Your task to perform on an android device: toggle show notifications on the lock screen Image 0: 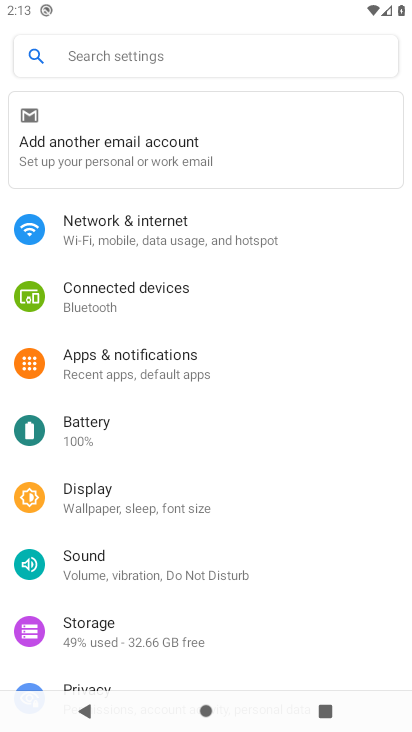
Step 0: press home button
Your task to perform on an android device: toggle show notifications on the lock screen Image 1: 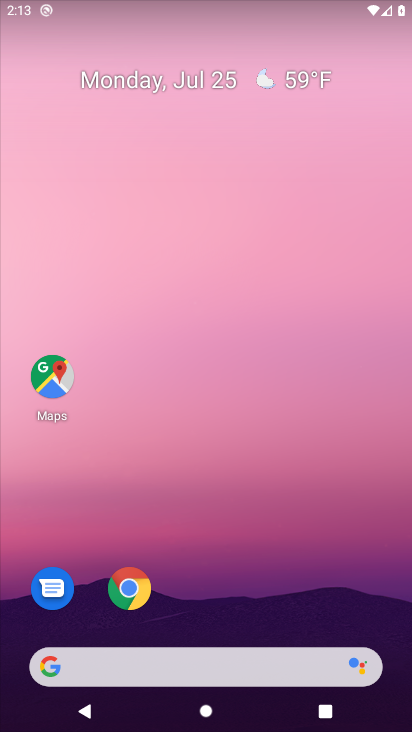
Step 1: drag from (272, 555) to (84, 4)
Your task to perform on an android device: toggle show notifications on the lock screen Image 2: 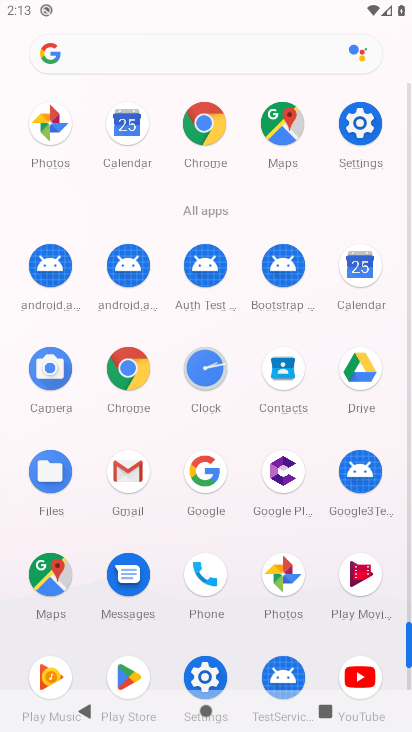
Step 2: click (365, 111)
Your task to perform on an android device: toggle show notifications on the lock screen Image 3: 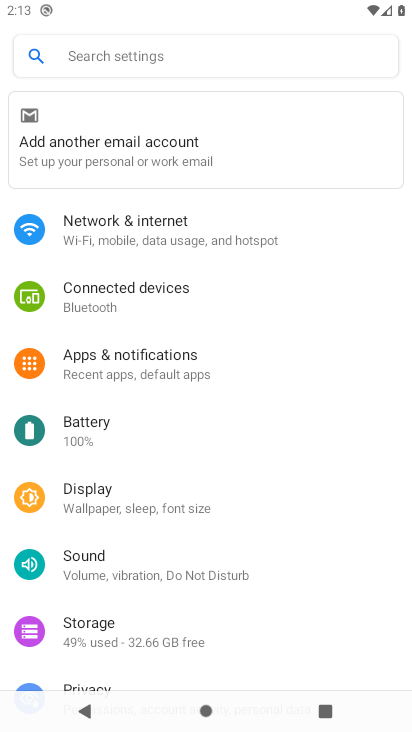
Step 3: drag from (180, 593) to (172, 343)
Your task to perform on an android device: toggle show notifications on the lock screen Image 4: 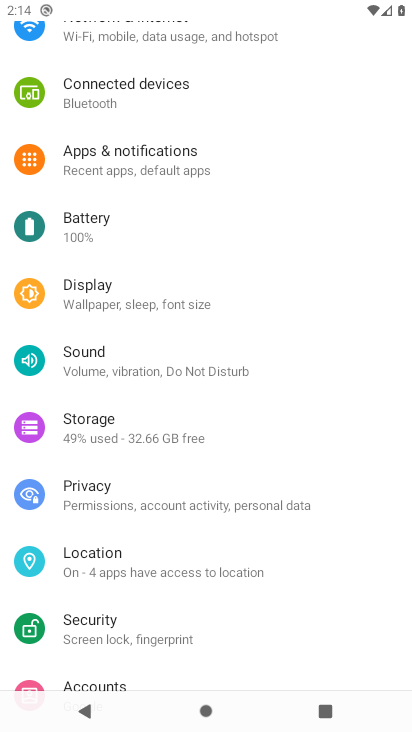
Step 4: drag from (187, 552) to (130, 259)
Your task to perform on an android device: toggle show notifications on the lock screen Image 5: 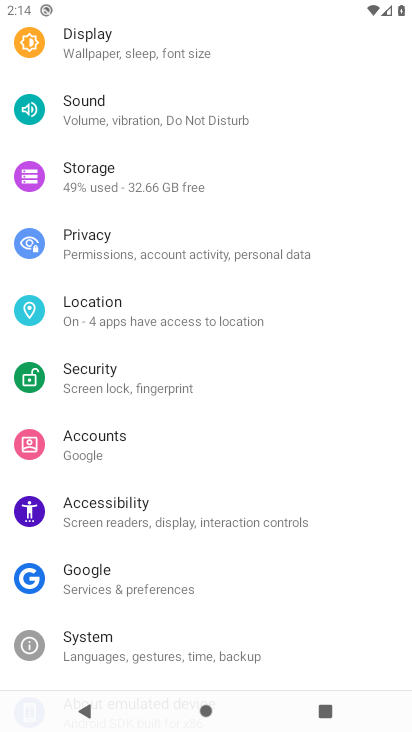
Step 5: drag from (112, 147) to (152, 427)
Your task to perform on an android device: toggle show notifications on the lock screen Image 6: 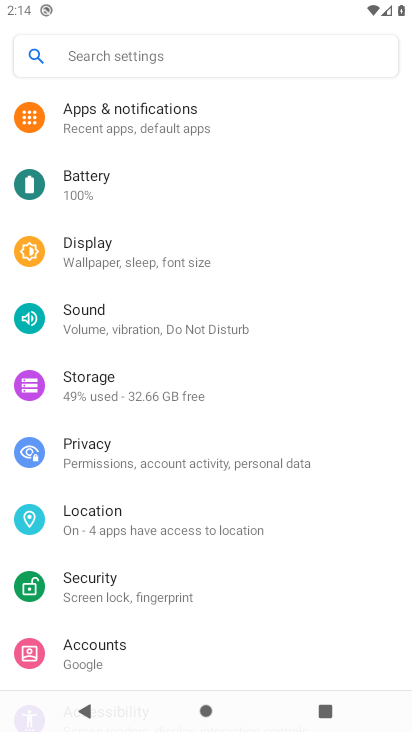
Step 6: click (106, 113)
Your task to perform on an android device: toggle show notifications on the lock screen Image 7: 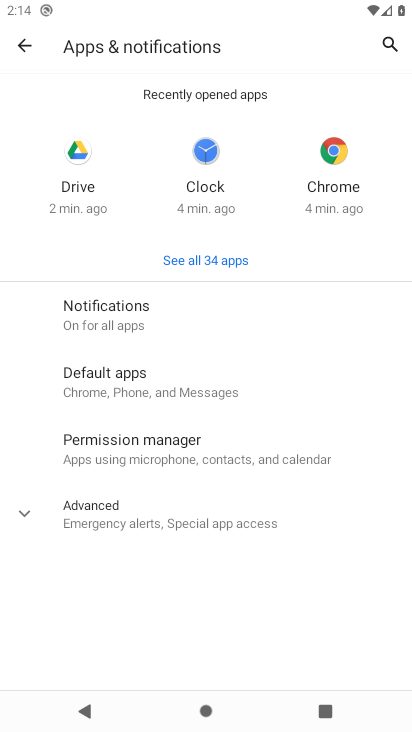
Step 7: click (211, 304)
Your task to perform on an android device: toggle show notifications on the lock screen Image 8: 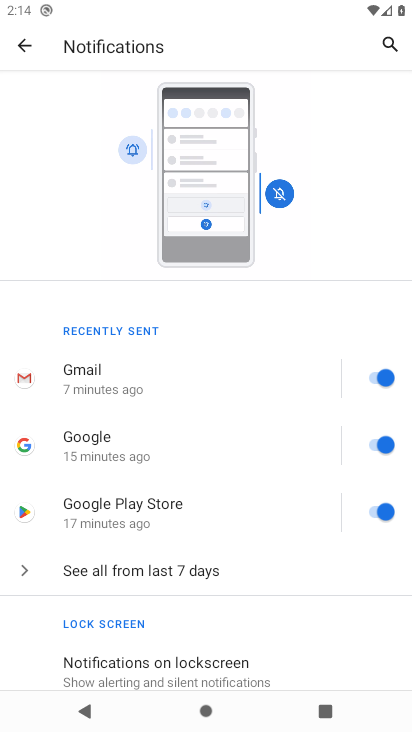
Step 8: click (217, 666)
Your task to perform on an android device: toggle show notifications on the lock screen Image 9: 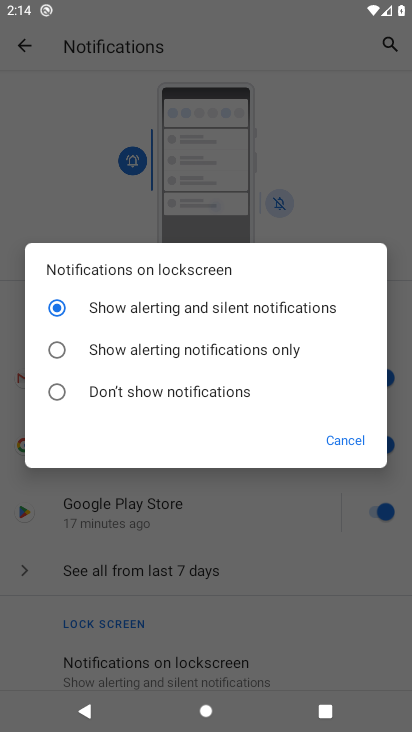
Step 9: click (93, 393)
Your task to perform on an android device: toggle show notifications on the lock screen Image 10: 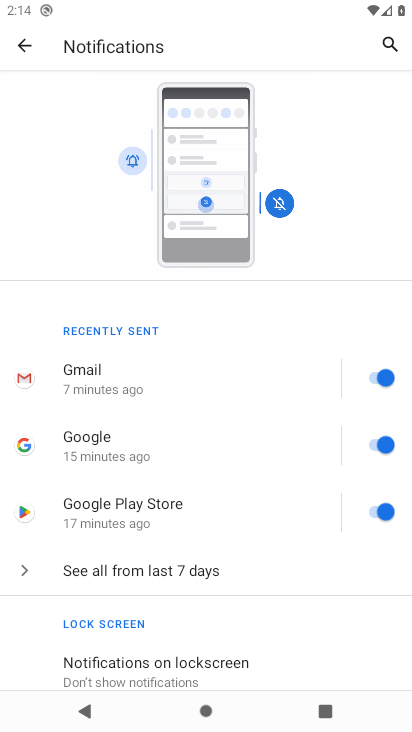
Step 10: task complete